Your task to perform on an android device: Open maps Image 0: 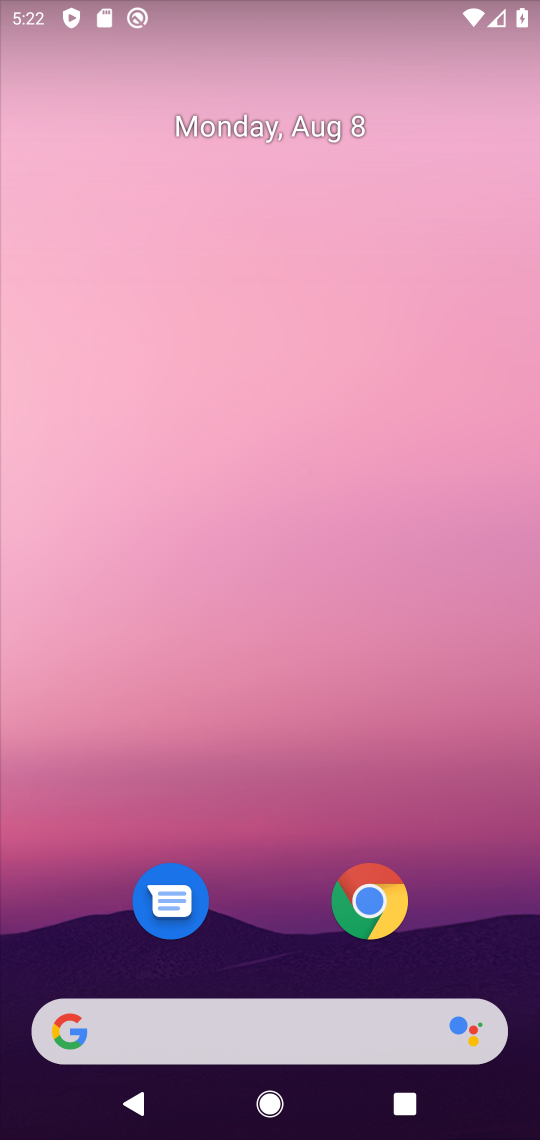
Step 0: drag from (490, 963) to (317, 30)
Your task to perform on an android device: Open maps Image 1: 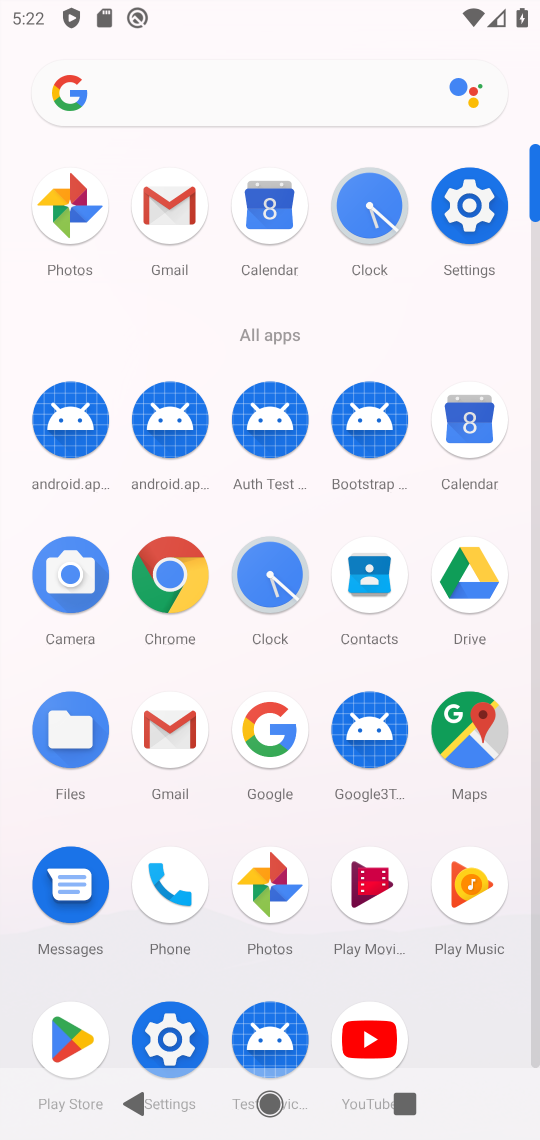
Step 1: click (476, 729)
Your task to perform on an android device: Open maps Image 2: 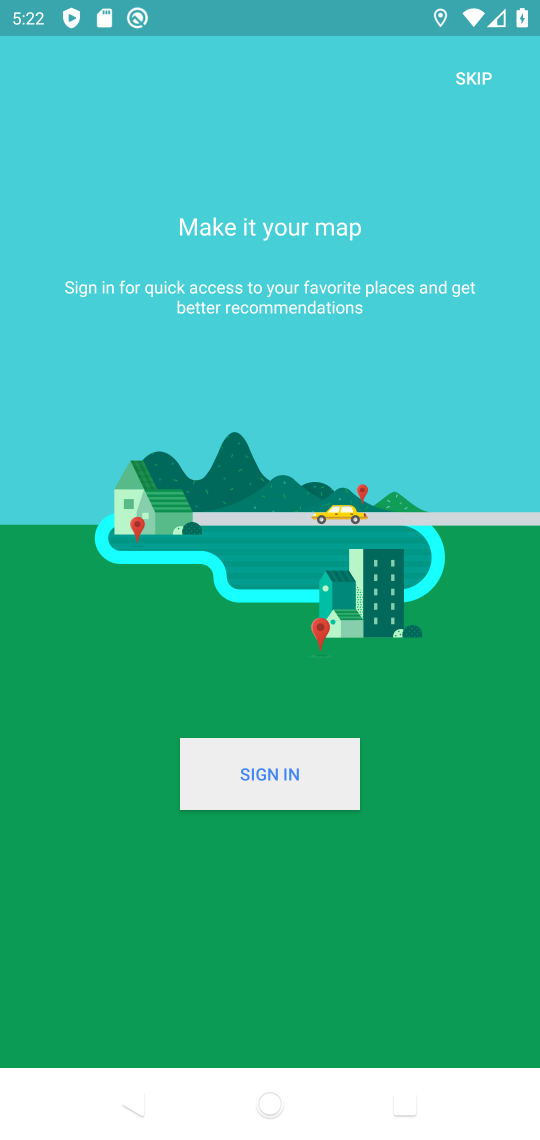
Step 2: click (473, 70)
Your task to perform on an android device: Open maps Image 3: 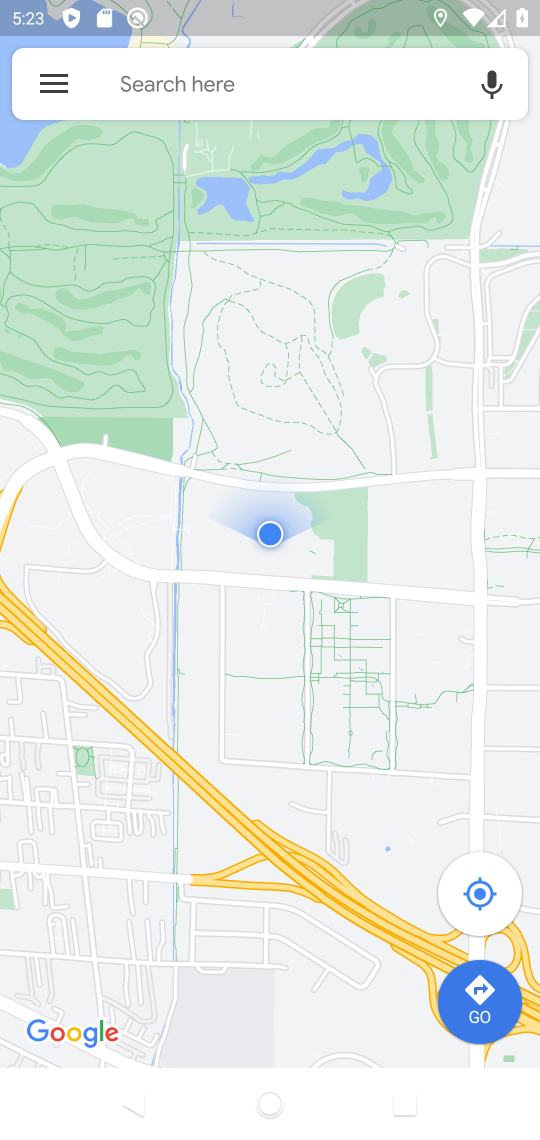
Step 3: task complete